Your task to perform on an android device: Open Google Maps Image 0: 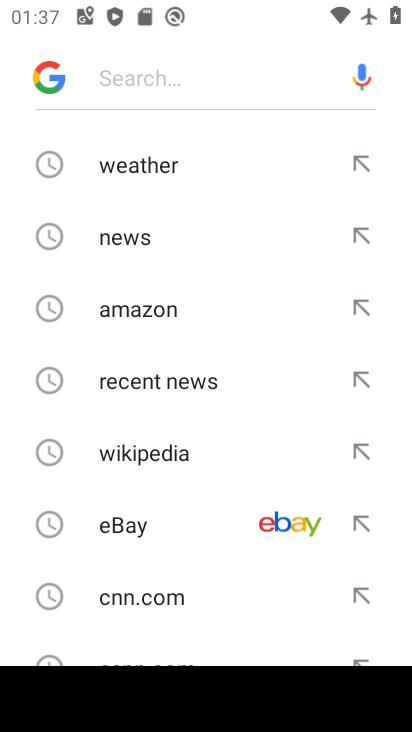
Step 0: press home button
Your task to perform on an android device: Open Google Maps Image 1: 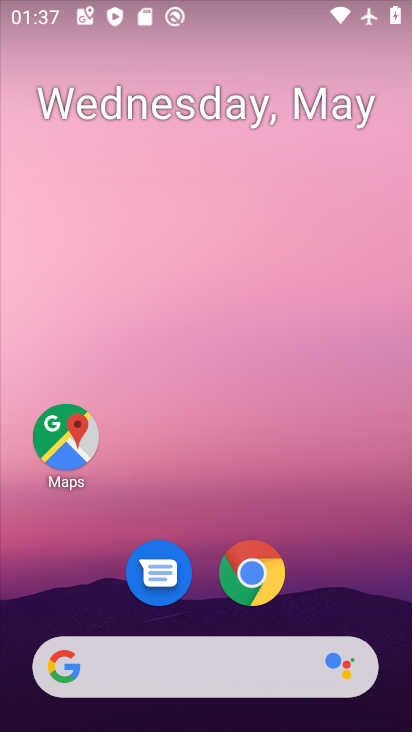
Step 1: drag from (317, 589) to (312, 325)
Your task to perform on an android device: Open Google Maps Image 2: 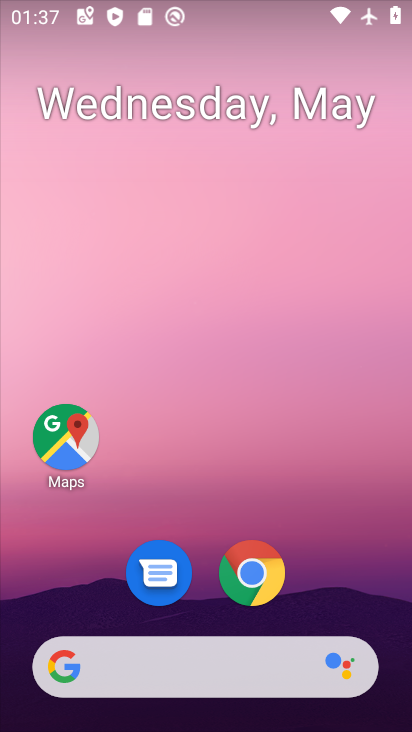
Step 2: click (44, 432)
Your task to perform on an android device: Open Google Maps Image 3: 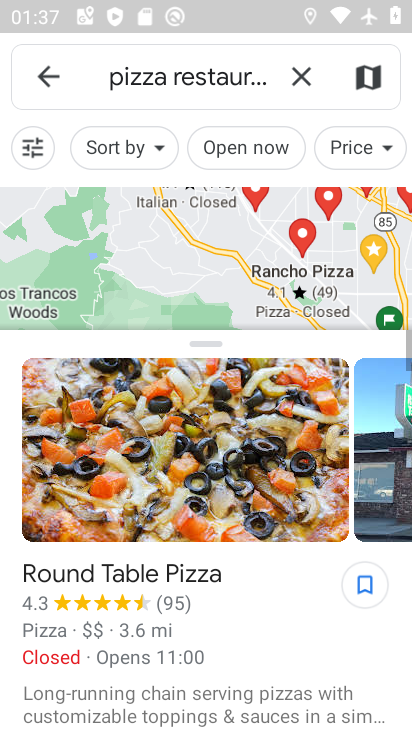
Step 3: task complete